Your task to perform on an android device: Go to sound settings Image 0: 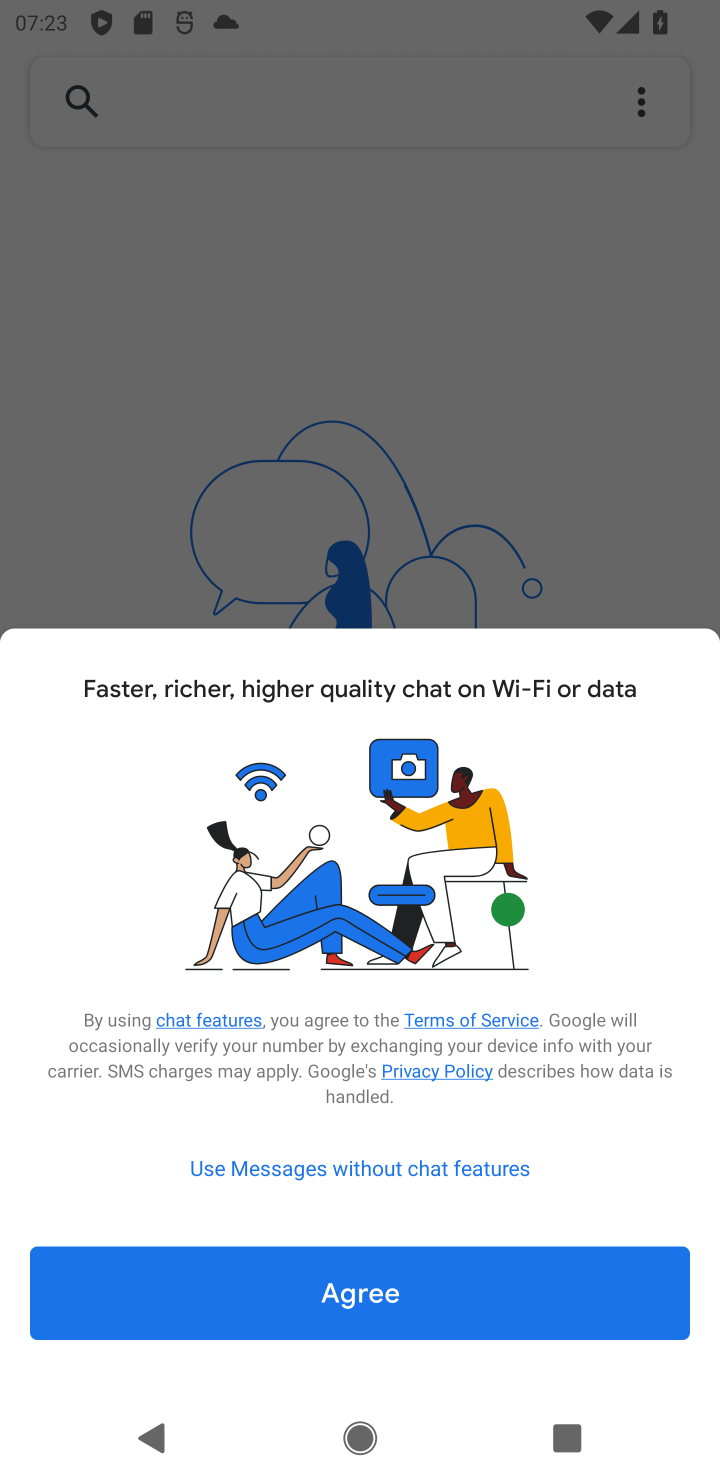
Step 0: press home button
Your task to perform on an android device: Go to sound settings Image 1: 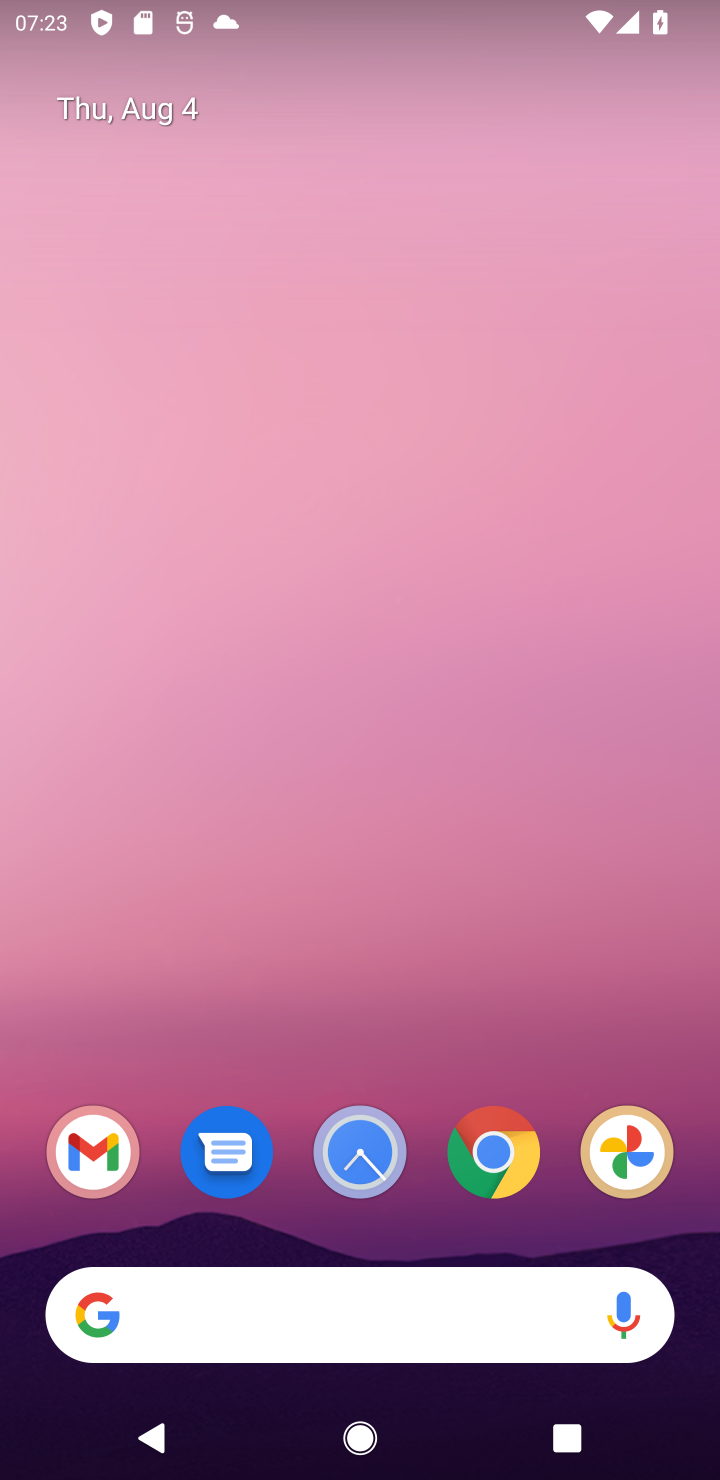
Step 1: drag from (57, 1129) to (400, 73)
Your task to perform on an android device: Go to sound settings Image 2: 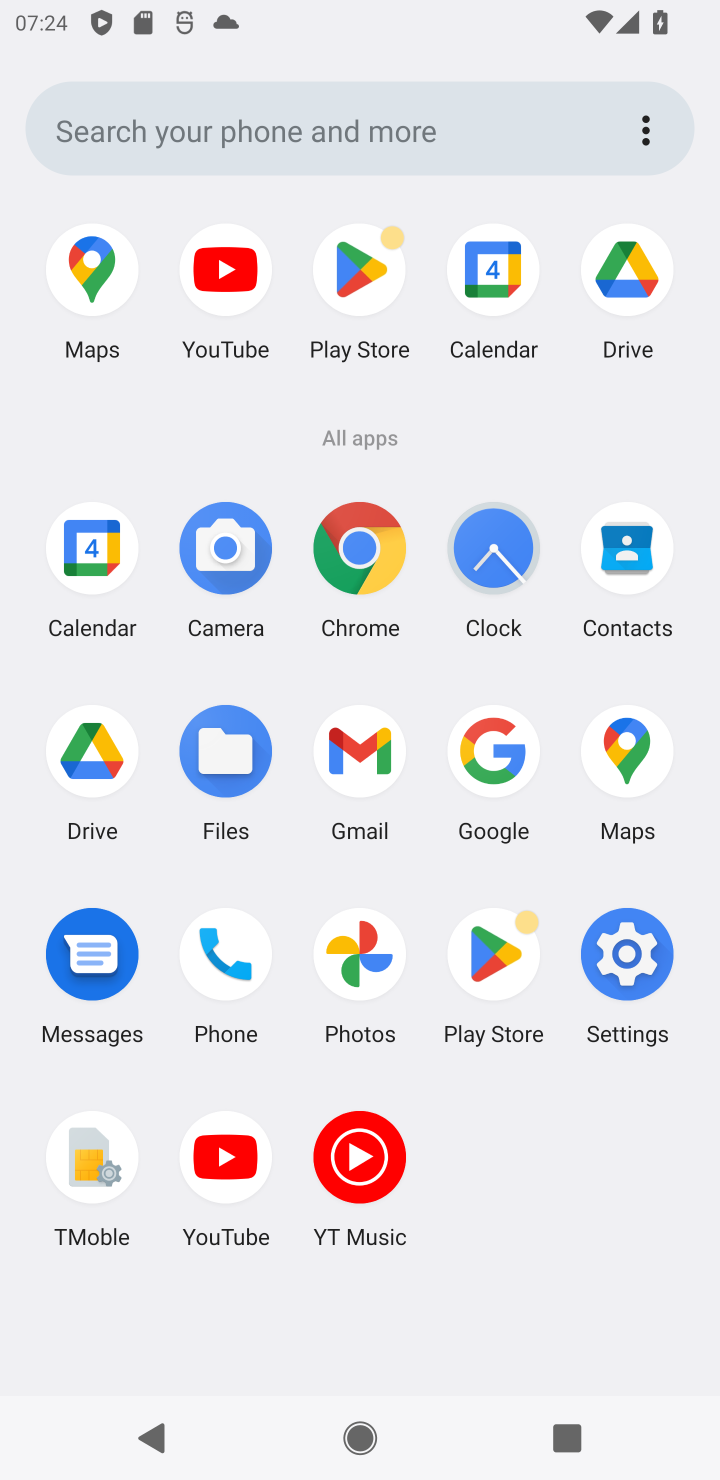
Step 2: click (616, 935)
Your task to perform on an android device: Go to sound settings Image 3: 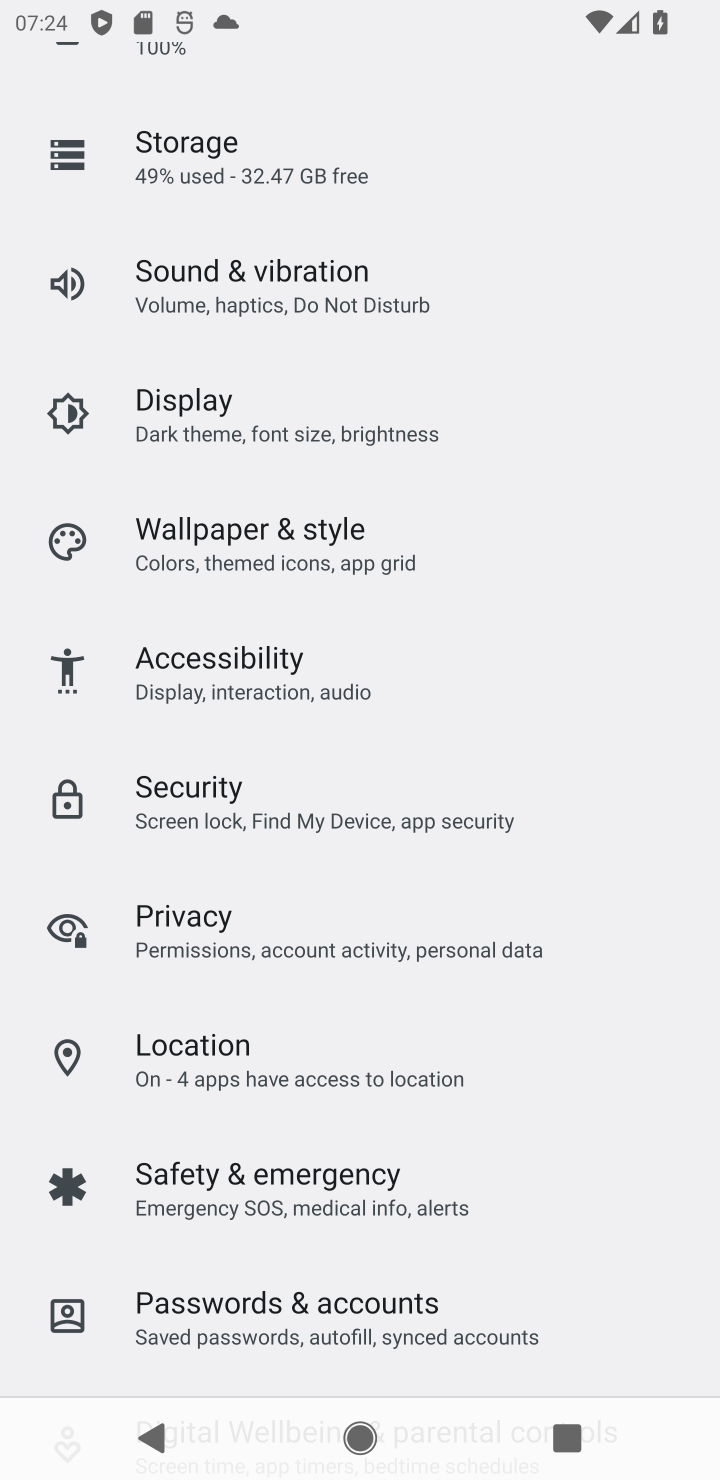
Step 3: drag from (315, 304) to (214, 1364)
Your task to perform on an android device: Go to sound settings Image 4: 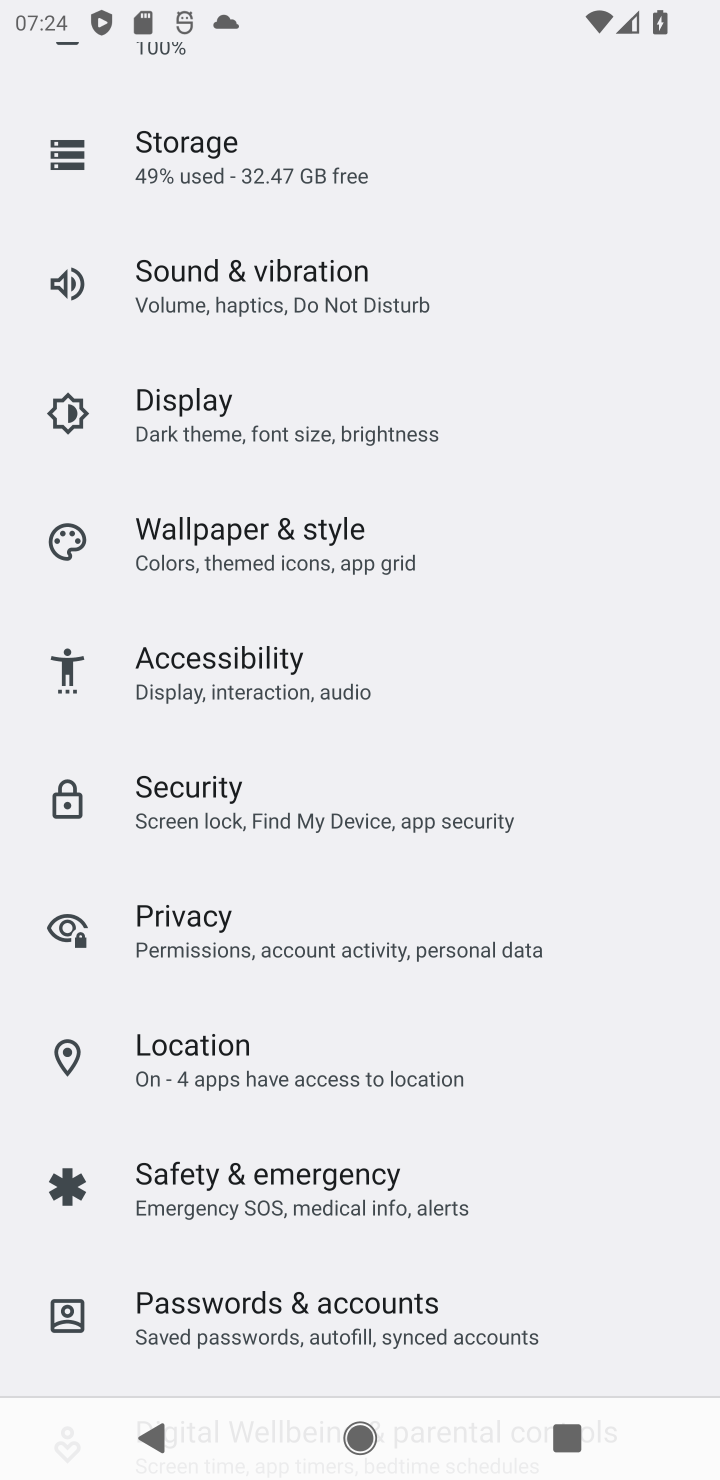
Step 4: click (174, 277)
Your task to perform on an android device: Go to sound settings Image 5: 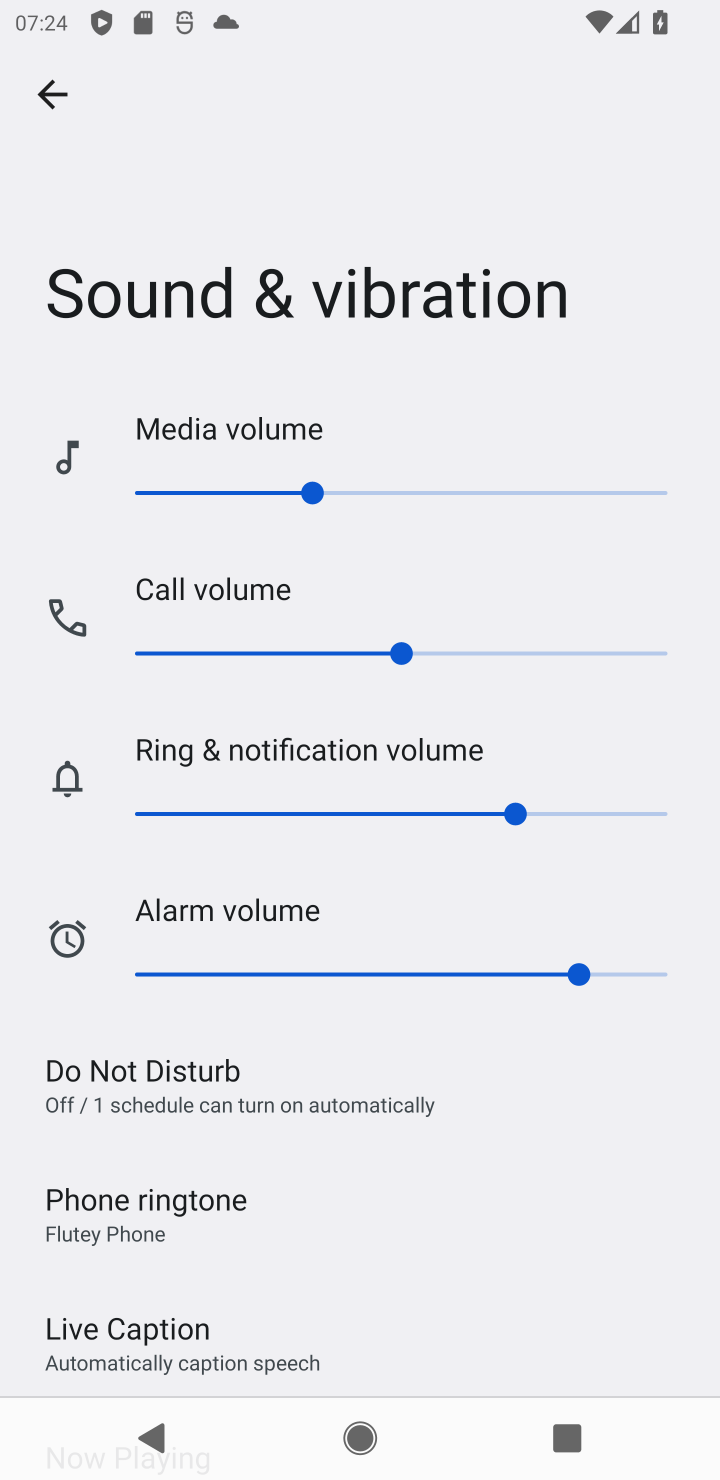
Step 5: task complete